Your task to perform on an android device: Show me productivity apps on the Play Store Image 0: 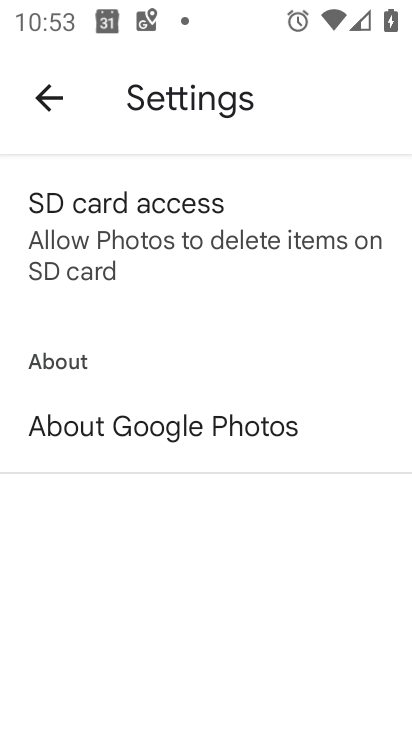
Step 0: press home button
Your task to perform on an android device: Show me productivity apps on the Play Store Image 1: 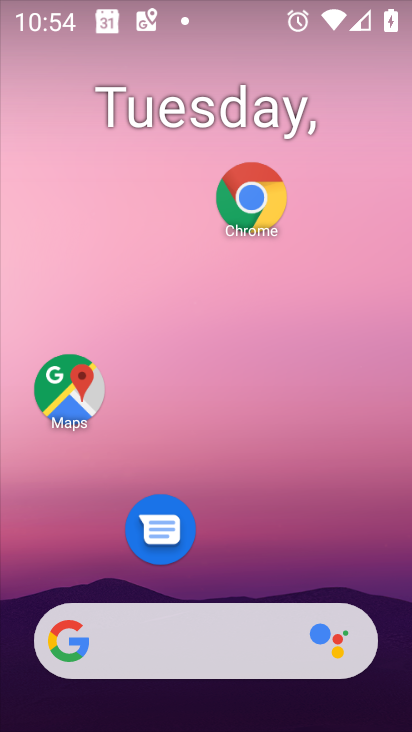
Step 1: drag from (337, 516) to (352, 26)
Your task to perform on an android device: Show me productivity apps on the Play Store Image 2: 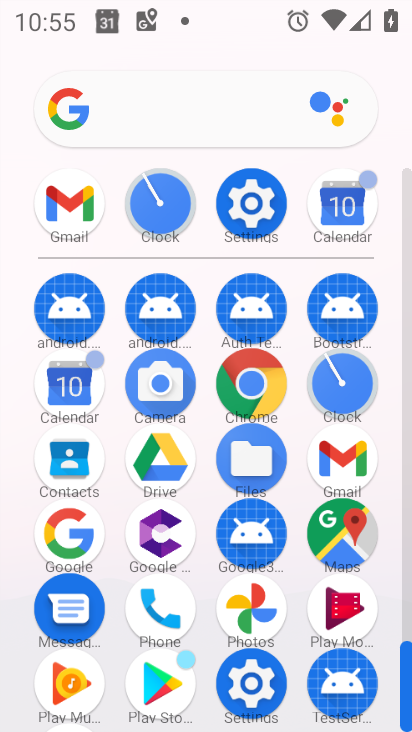
Step 2: click (153, 698)
Your task to perform on an android device: Show me productivity apps on the Play Store Image 3: 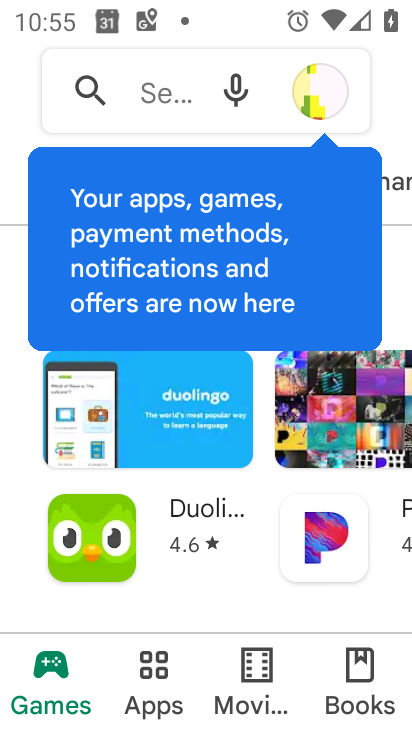
Step 3: click (144, 669)
Your task to perform on an android device: Show me productivity apps on the Play Store Image 4: 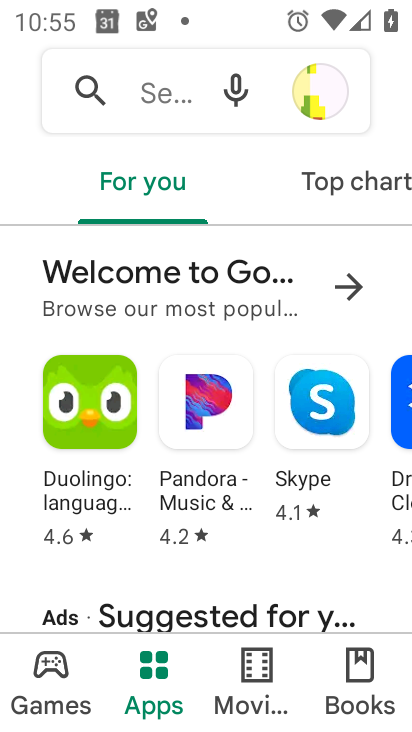
Step 4: click (342, 183)
Your task to perform on an android device: Show me productivity apps on the Play Store Image 5: 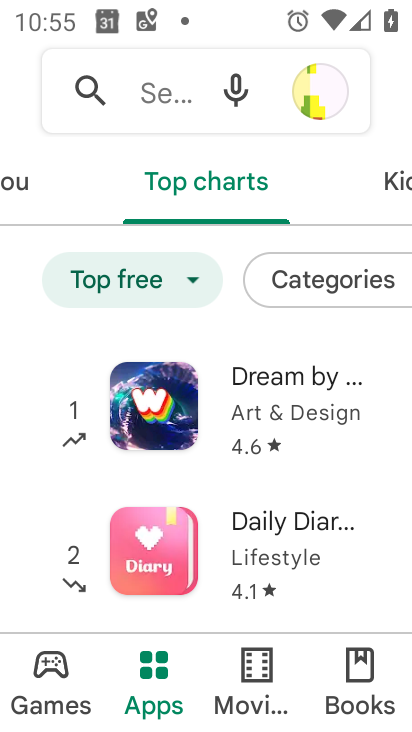
Step 5: click (340, 259)
Your task to perform on an android device: Show me productivity apps on the Play Store Image 6: 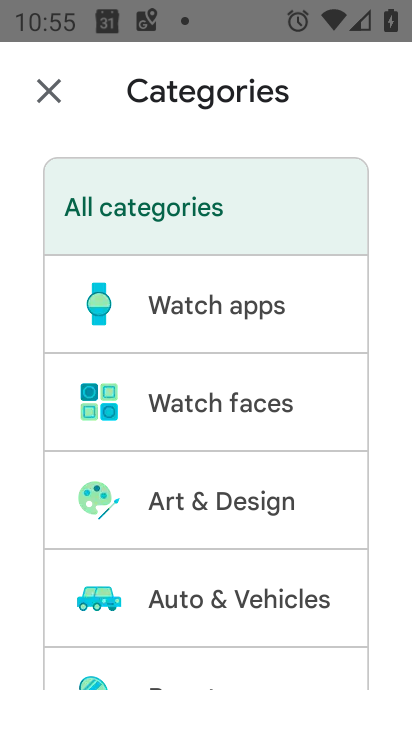
Step 6: drag from (175, 670) to (176, 41)
Your task to perform on an android device: Show me productivity apps on the Play Store Image 7: 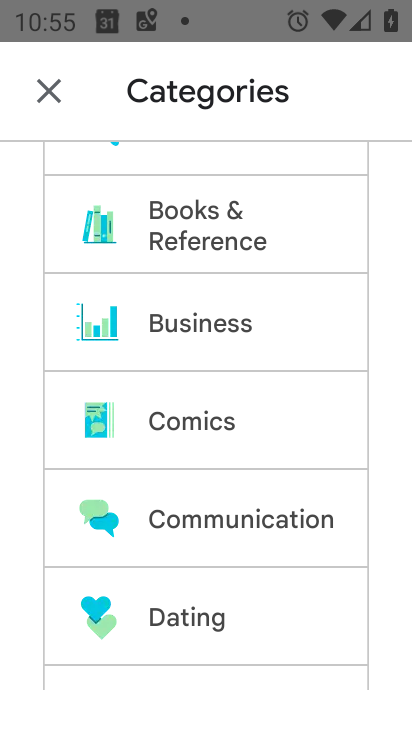
Step 7: drag from (196, 647) to (129, 135)
Your task to perform on an android device: Show me productivity apps on the Play Store Image 8: 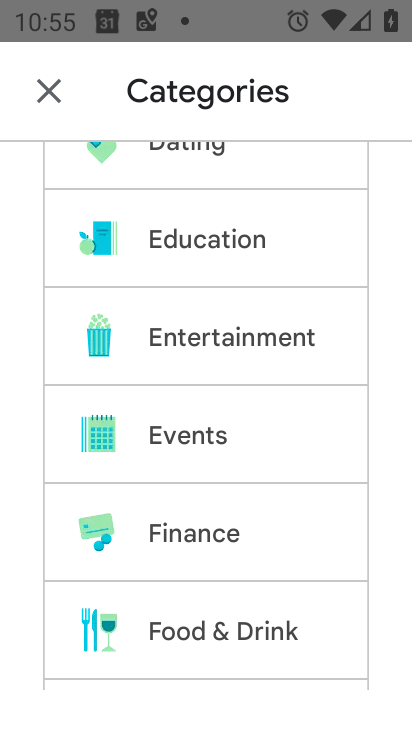
Step 8: drag from (233, 658) to (251, 174)
Your task to perform on an android device: Show me productivity apps on the Play Store Image 9: 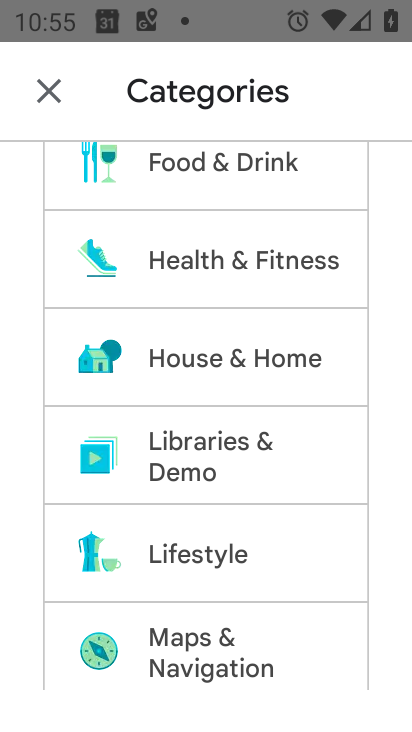
Step 9: drag from (154, 566) to (142, 204)
Your task to perform on an android device: Show me productivity apps on the Play Store Image 10: 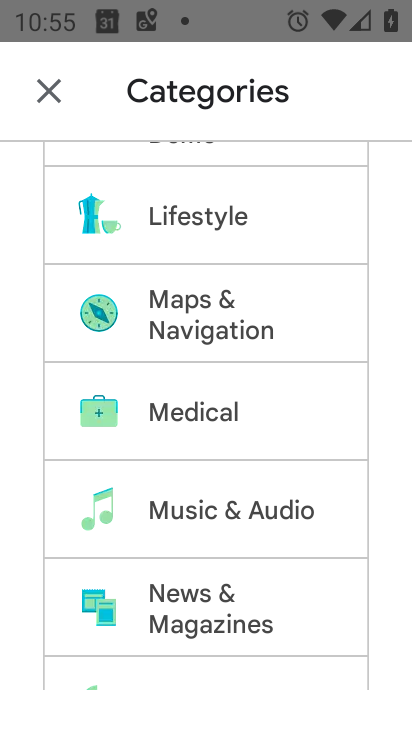
Step 10: drag from (186, 600) to (159, 122)
Your task to perform on an android device: Show me productivity apps on the Play Store Image 11: 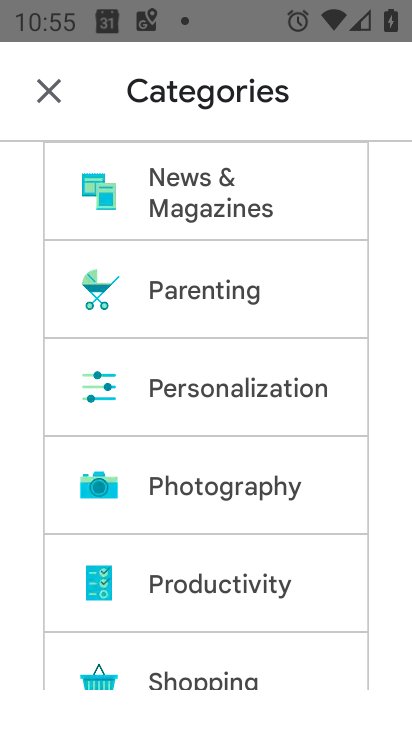
Step 11: drag from (205, 574) to (206, 411)
Your task to perform on an android device: Show me productivity apps on the Play Store Image 12: 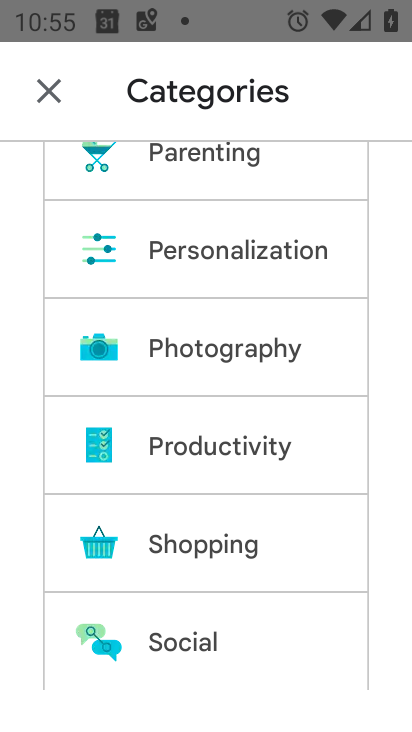
Step 12: click (221, 468)
Your task to perform on an android device: Show me productivity apps on the Play Store Image 13: 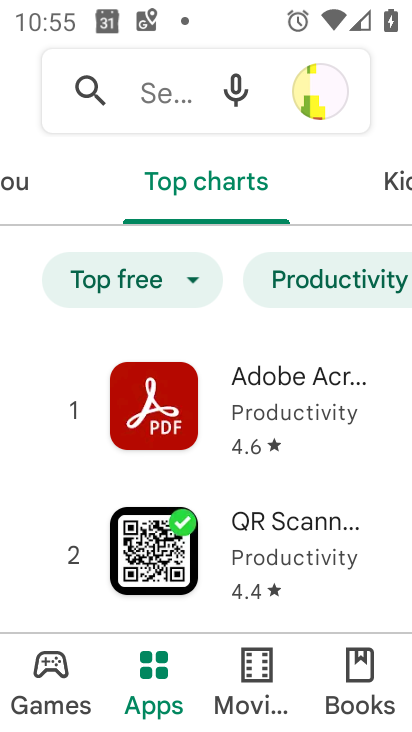
Step 13: task complete